Your task to perform on an android device: Open Google Image 0: 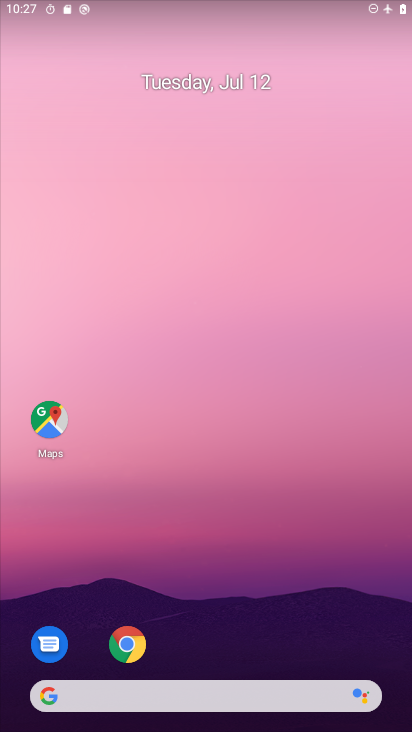
Step 0: drag from (193, 641) to (211, 169)
Your task to perform on an android device: Open Google Image 1: 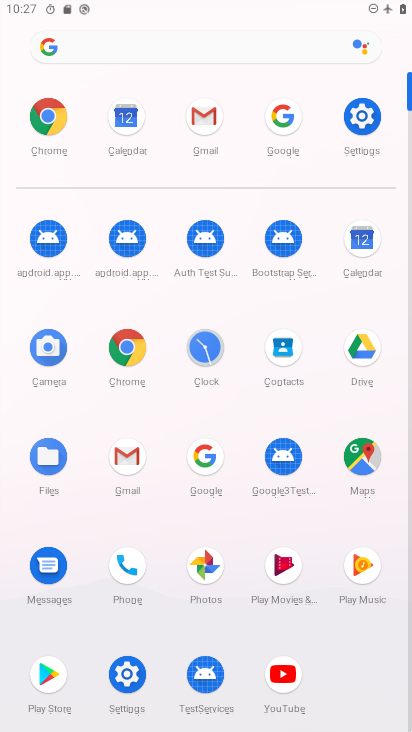
Step 1: click (286, 126)
Your task to perform on an android device: Open Google Image 2: 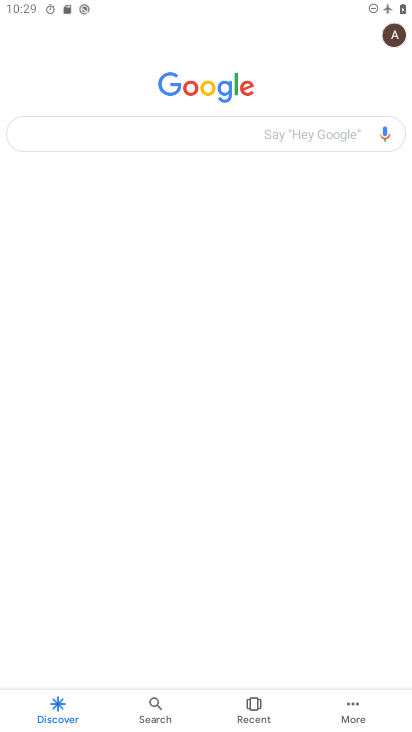
Step 2: task complete